Your task to perform on an android device: set the timer Image 0: 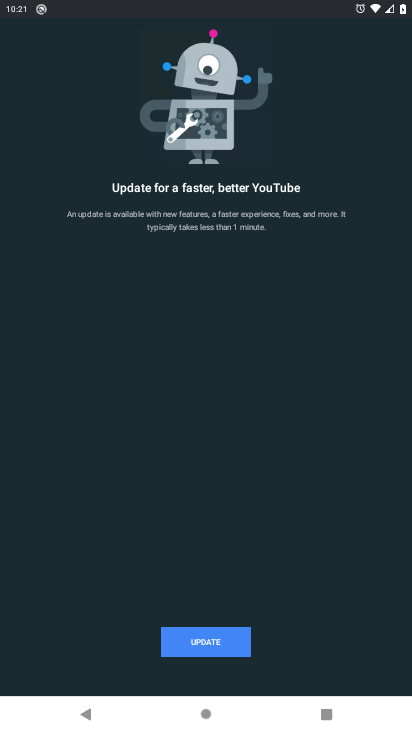
Step 0: press home button
Your task to perform on an android device: set the timer Image 1: 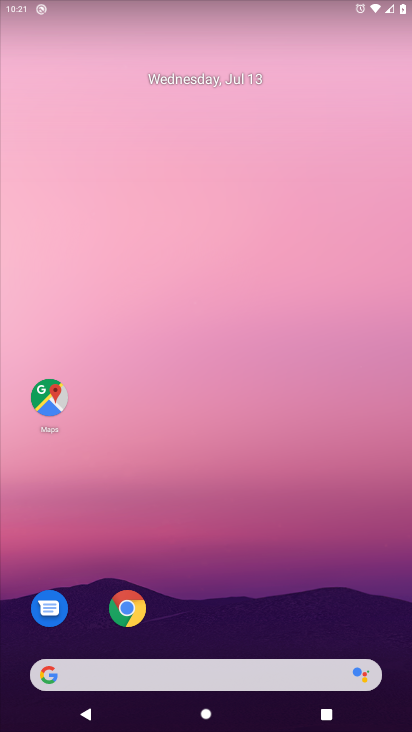
Step 1: drag from (56, 709) to (204, 67)
Your task to perform on an android device: set the timer Image 2: 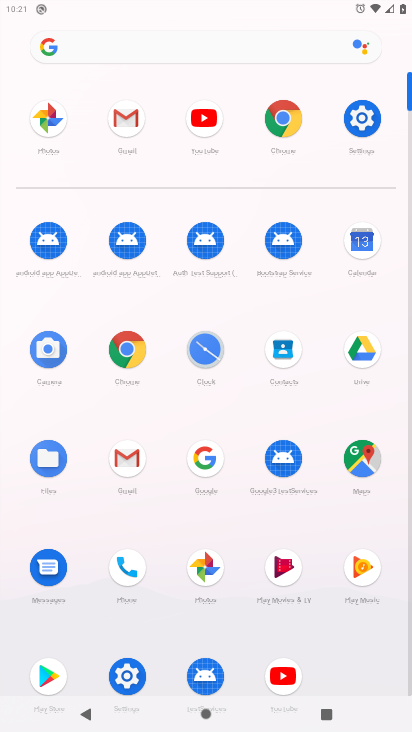
Step 2: click (214, 339)
Your task to perform on an android device: set the timer Image 3: 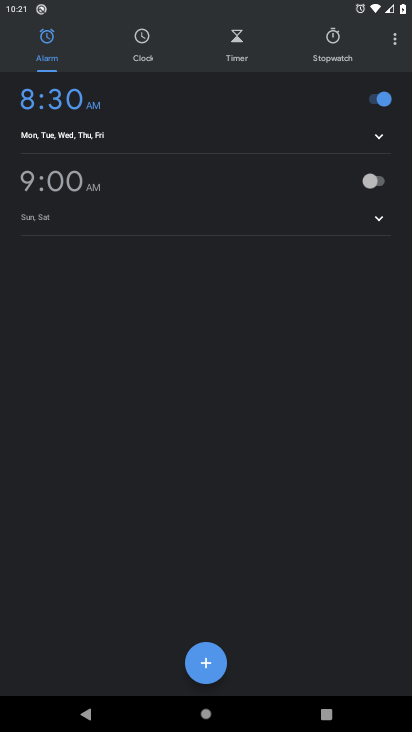
Step 3: click (228, 46)
Your task to perform on an android device: set the timer Image 4: 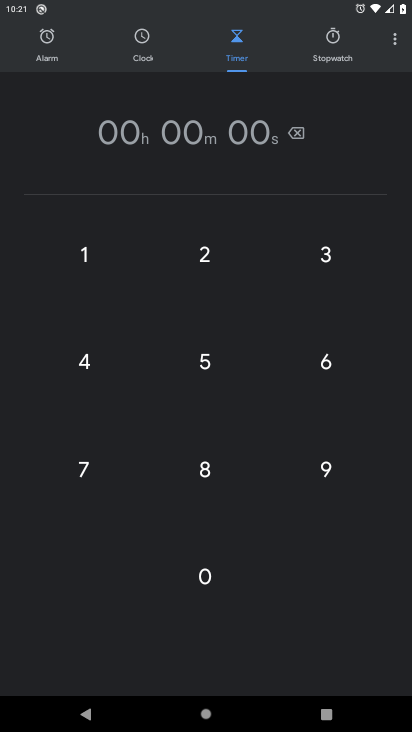
Step 4: click (184, 390)
Your task to perform on an android device: set the timer Image 5: 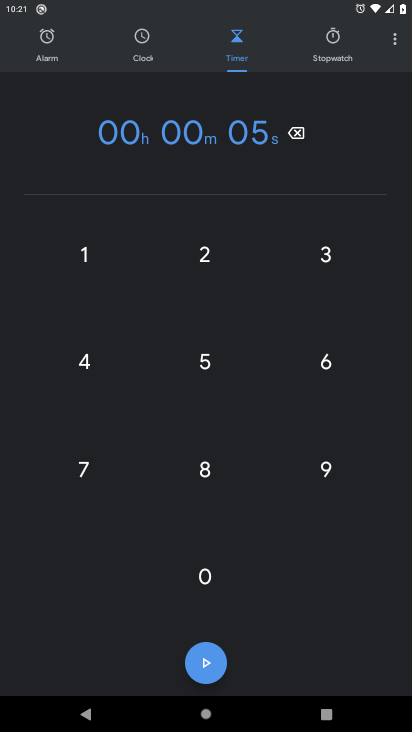
Step 5: click (202, 243)
Your task to perform on an android device: set the timer Image 6: 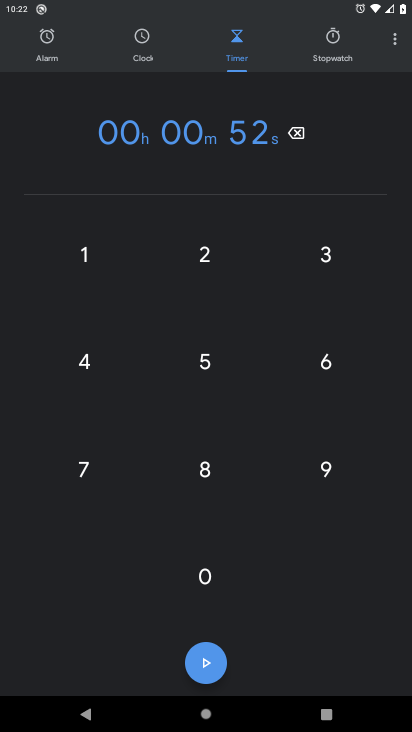
Step 6: task complete